Your task to perform on an android device: toggle notification dots Image 0: 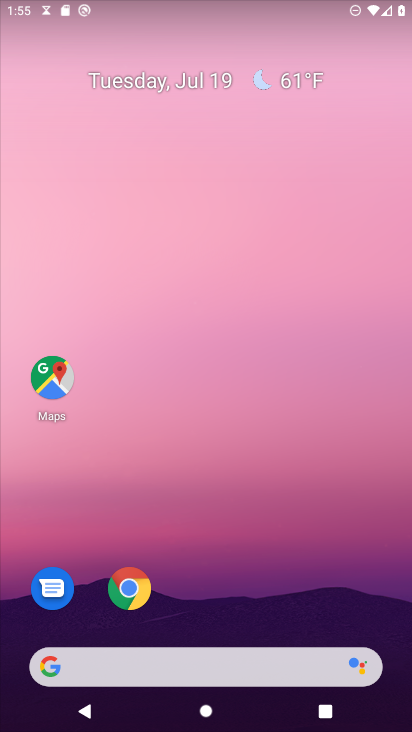
Step 0: drag from (307, 686) to (354, 69)
Your task to perform on an android device: toggle notification dots Image 1: 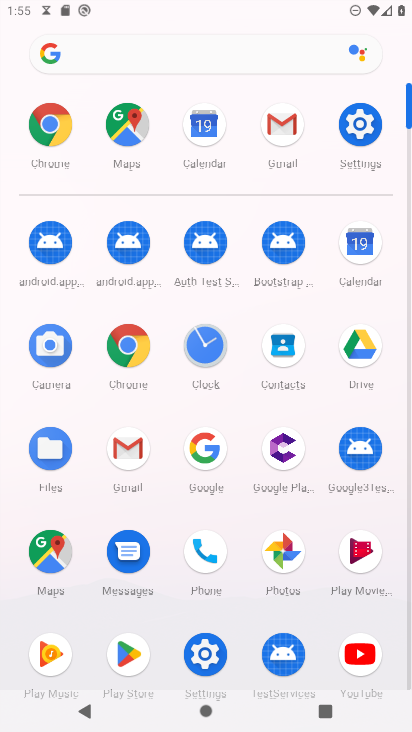
Step 1: click (199, 647)
Your task to perform on an android device: toggle notification dots Image 2: 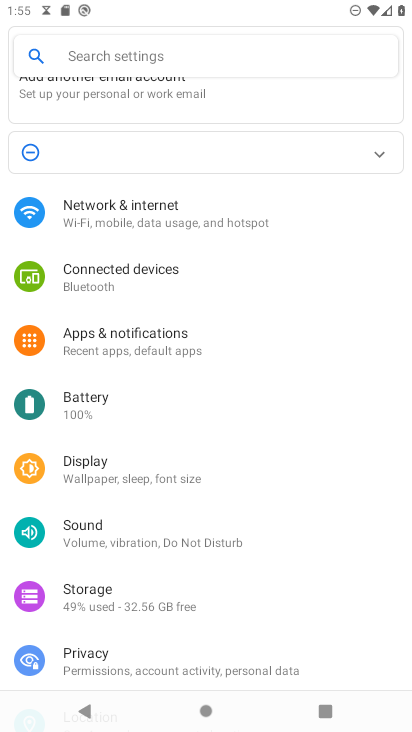
Step 2: click (114, 51)
Your task to perform on an android device: toggle notification dots Image 3: 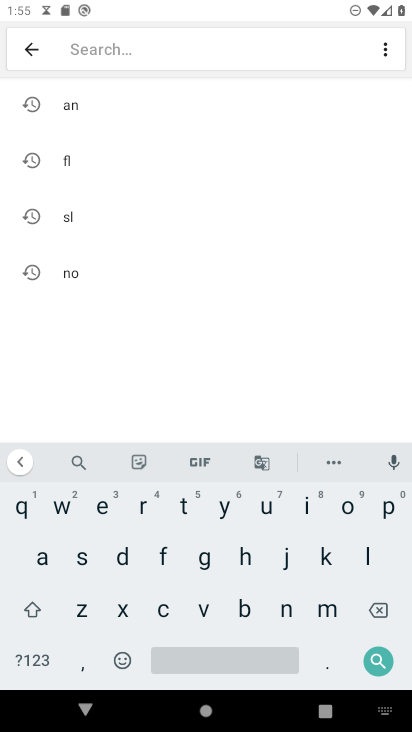
Step 3: click (74, 274)
Your task to perform on an android device: toggle notification dots Image 4: 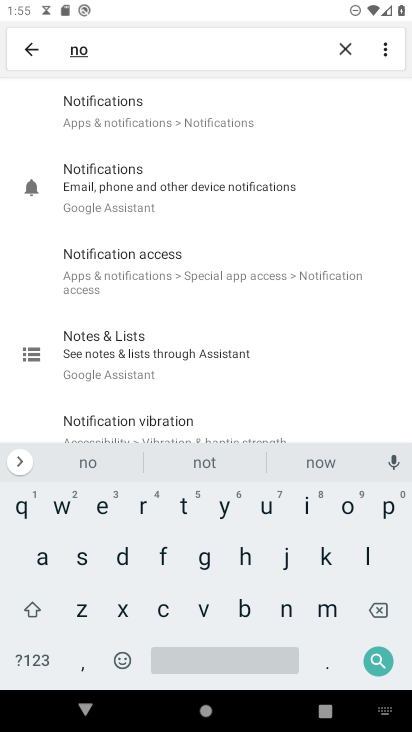
Step 4: click (164, 110)
Your task to perform on an android device: toggle notification dots Image 5: 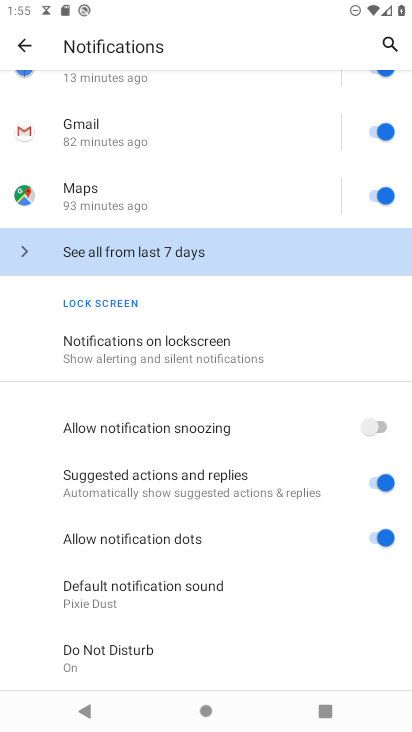
Step 5: click (354, 537)
Your task to perform on an android device: toggle notification dots Image 6: 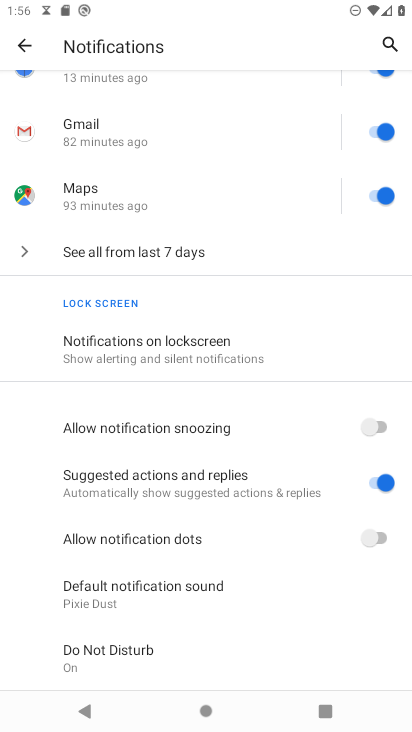
Step 6: task complete